Your task to perform on an android device: toggle translation in the chrome app Image 0: 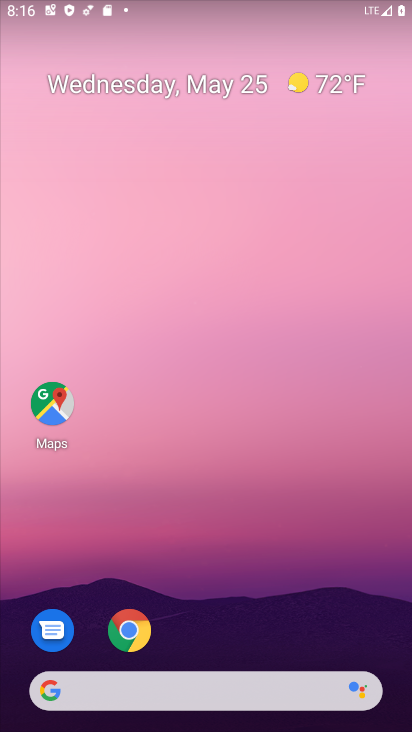
Step 0: click (128, 621)
Your task to perform on an android device: toggle translation in the chrome app Image 1: 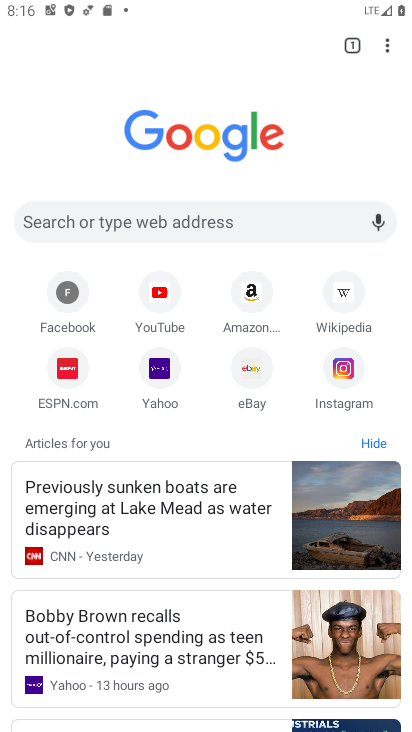
Step 1: click (380, 42)
Your task to perform on an android device: toggle translation in the chrome app Image 2: 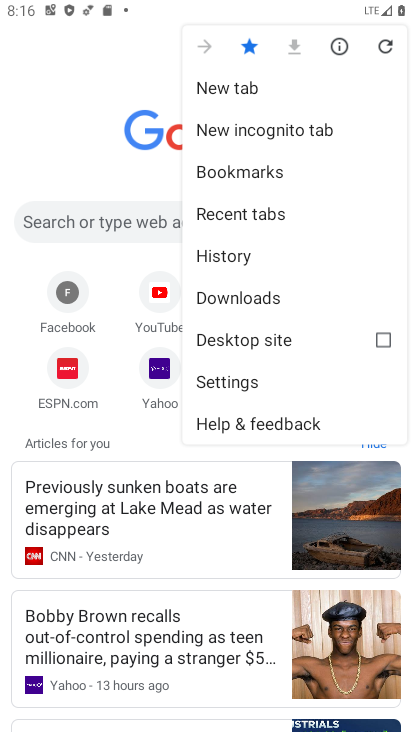
Step 2: click (239, 380)
Your task to perform on an android device: toggle translation in the chrome app Image 3: 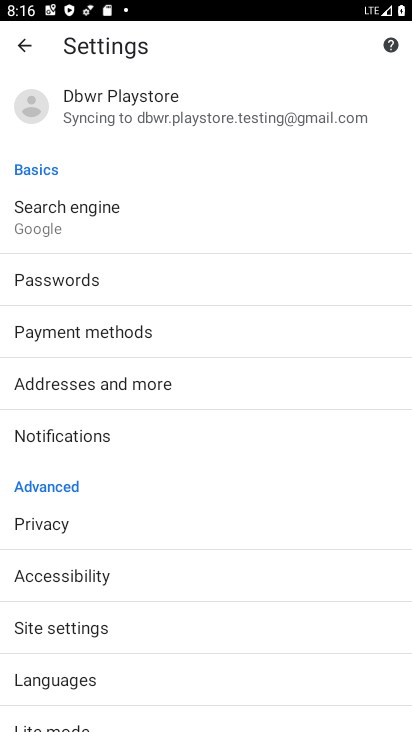
Step 3: drag from (140, 658) to (181, 390)
Your task to perform on an android device: toggle translation in the chrome app Image 4: 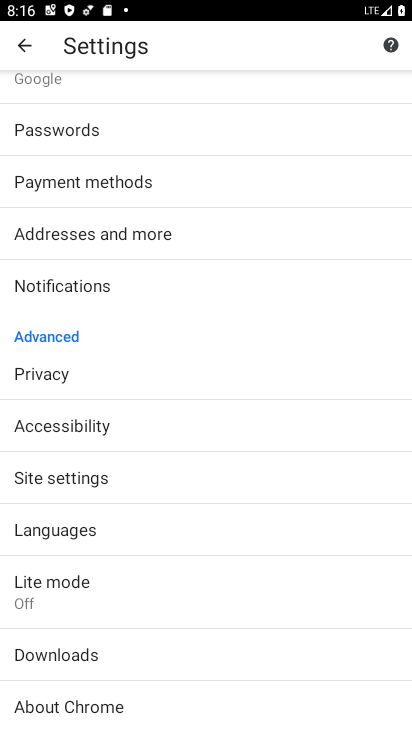
Step 4: click (110, 527)
Your task to perform on an android device: toggle translation in the chrome app Image 5: 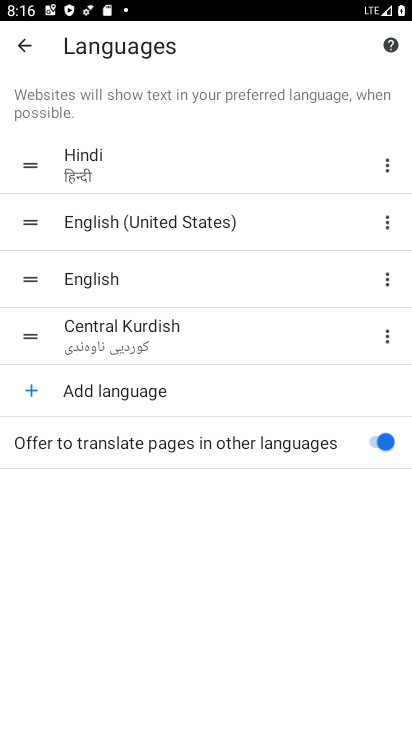
Step 5: click (367, 439)
Your task to perform on an android device: toggle translation in the chrome app Image 6: 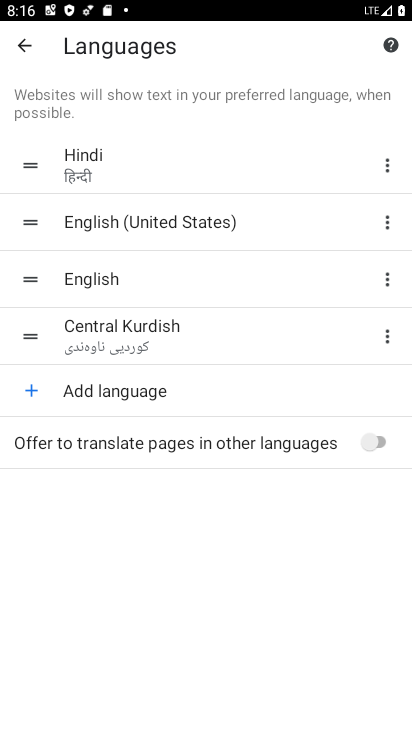
Step 6: task complete